Your task to perform on an android device: open app "Adobe Acrobat Reader" (install if not already installed) Image 0: 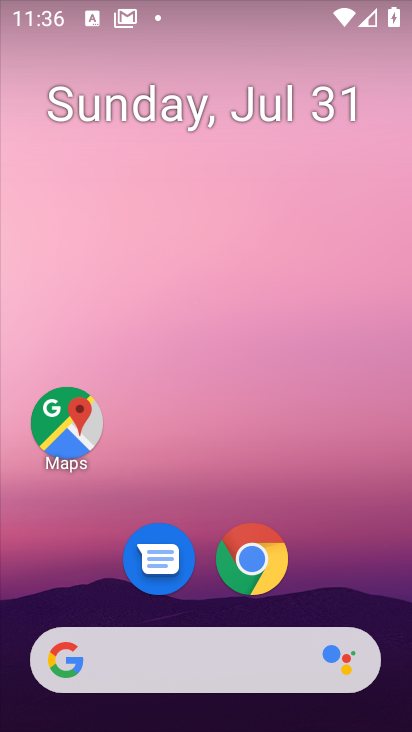
Step 0: drag from (65, 564) to (264, 101)
Your task to perform on an android device: open app "Adobe Acrobat Reader" (install if not already installed) Image 1: 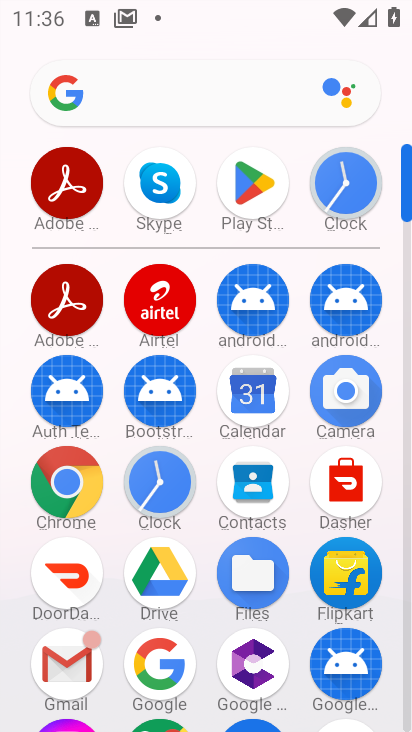
Step 1: click (267, 202)
Your task to perform on an android device: open app "Adobe Acrobat Reader" (install if not already installed) Image 2: 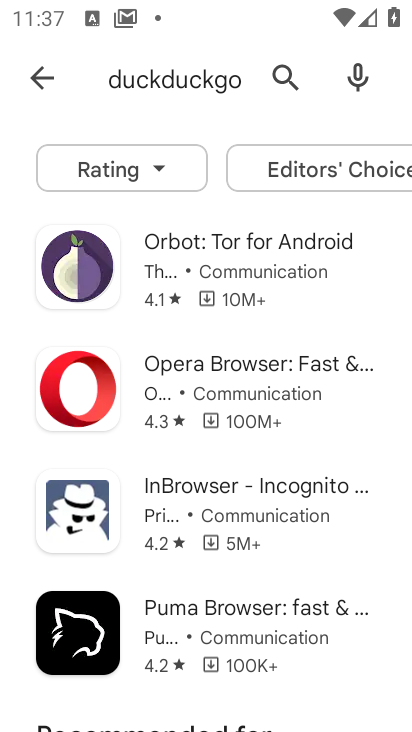
Step 2: click (296, 70)
Your task to perform on an android device: open app "Adobe Acrobat Reader" (install if not already installed) Image 3: 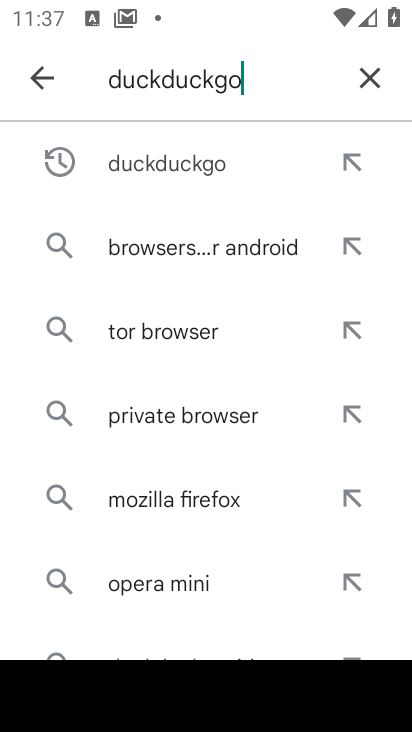
Step 3: click (379, 81)
Your task to perform on an android device: open app "Adobe Acrobat Reader" (install if not already installed) Image 4: 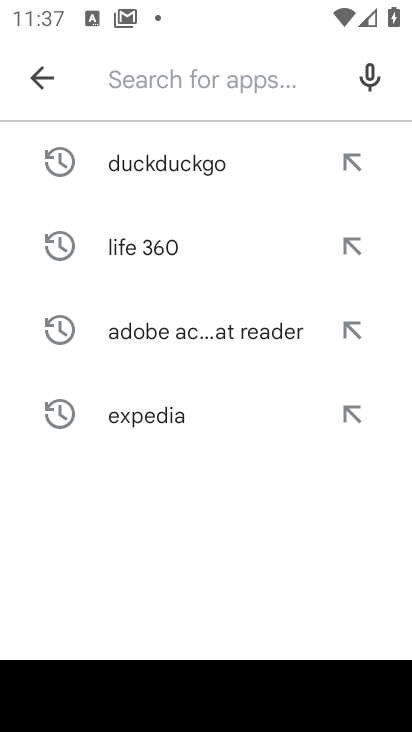
Step 4: click (171, 332)
Your task to perform on an android device: open app "Adobe Acrobat Reader" (install if not already installed) Image 5: 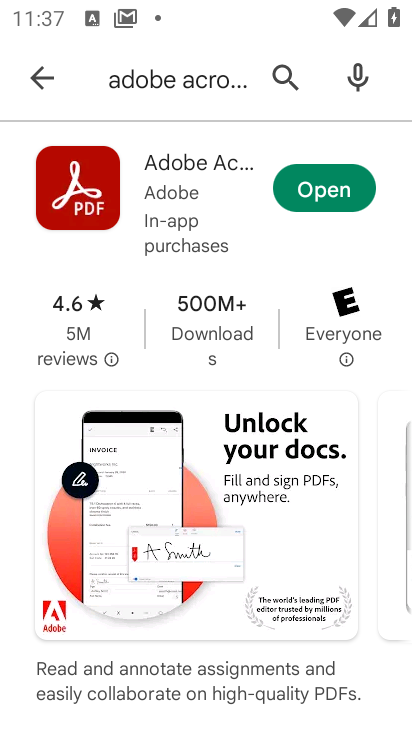
Step 5: click (313, 184)
Your task to perform on an android device: open app "Adobe Acrobat Reader" (install if not already installed) Image 6: 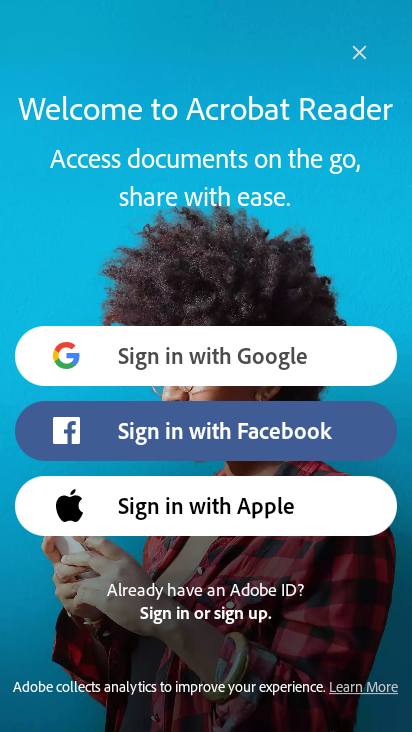
Step 6: task complete